Your task to perform on an android device: Go to accessibility settings Image 0: 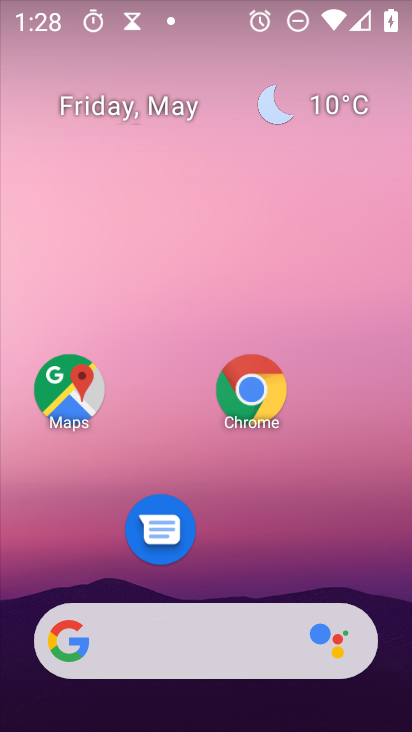
Step 0: press home button
Your task to perform on an android device: Go to accessibility settings Image 1: 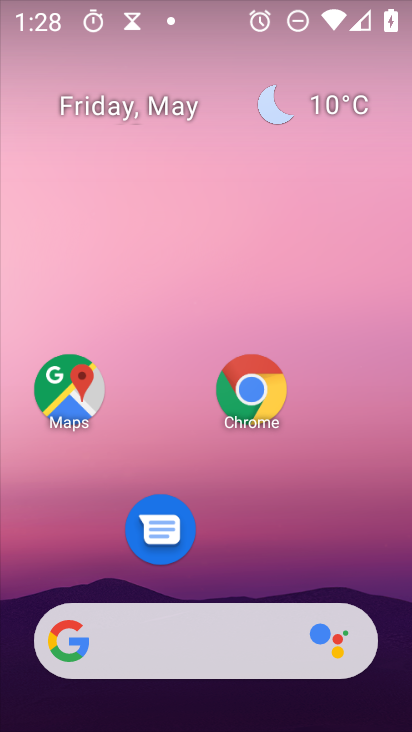
Step 1: drag from (171, 654) to (265, 103)
Your task to perform on an android device: Go to accessibility settings Image 2: 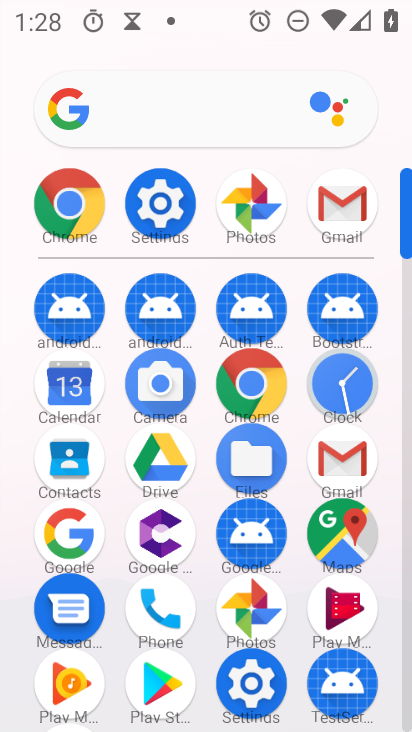
Step 2: click (158, 199)
Your task to perform on an android device: Go to accessibility settings Image 3: 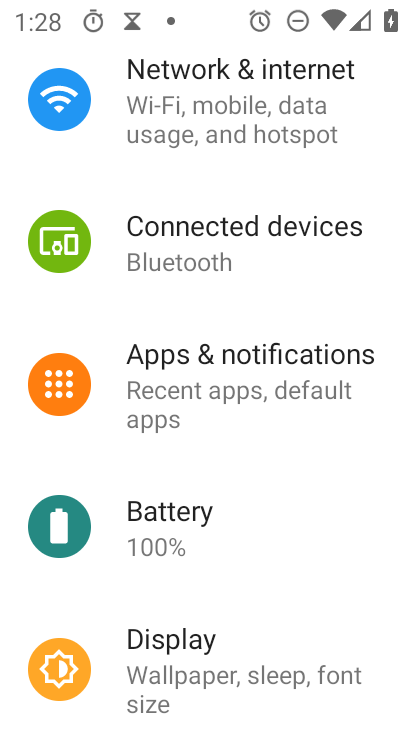
Step 3: drag from (267, 598) to (335, 86)
Your task to perform on an android device: Go to accessibility settings Image 4: 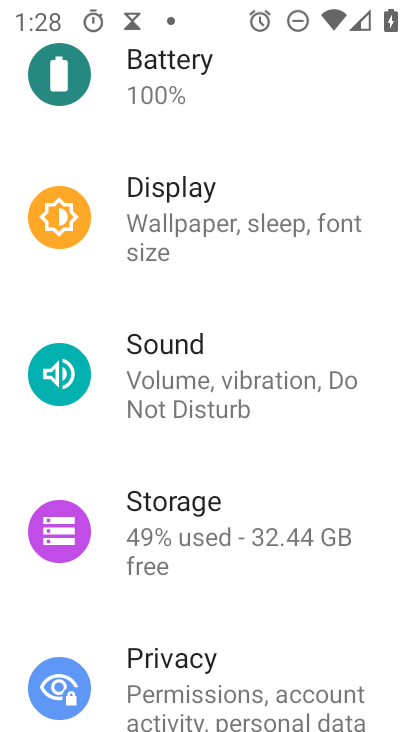
Step 4: drag from (216, 631) to (305, 6)
Your task to perform on an android device: Go to accessibility settings Image 5: 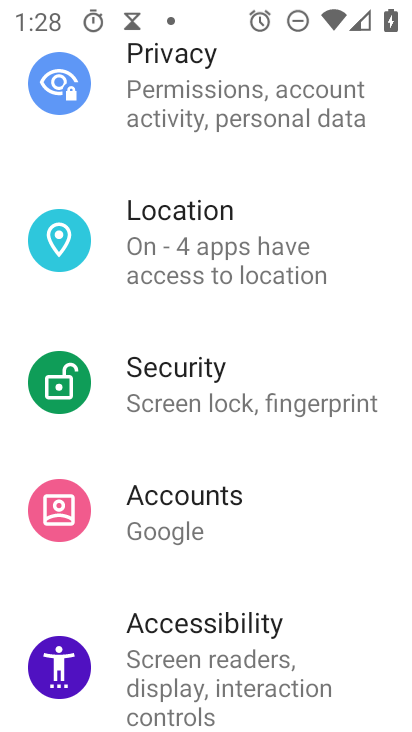
Step 5: click (170, 638)
Your task to perform on an android device: Go to accessibility settings Image 6: 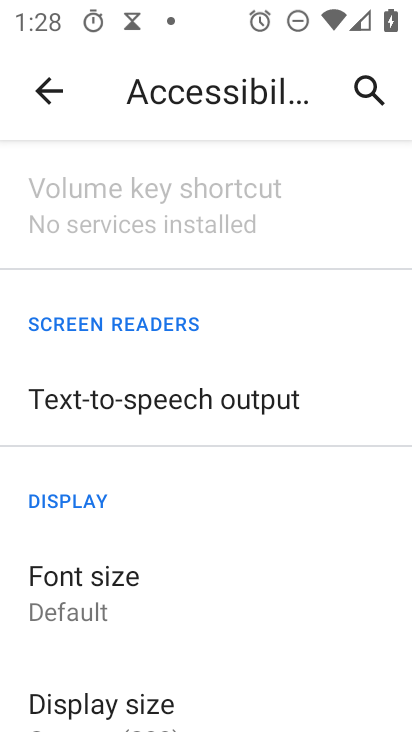
Step 6: task complete